Your task to perform on an android device: turn on improve location accuracy Image 0: 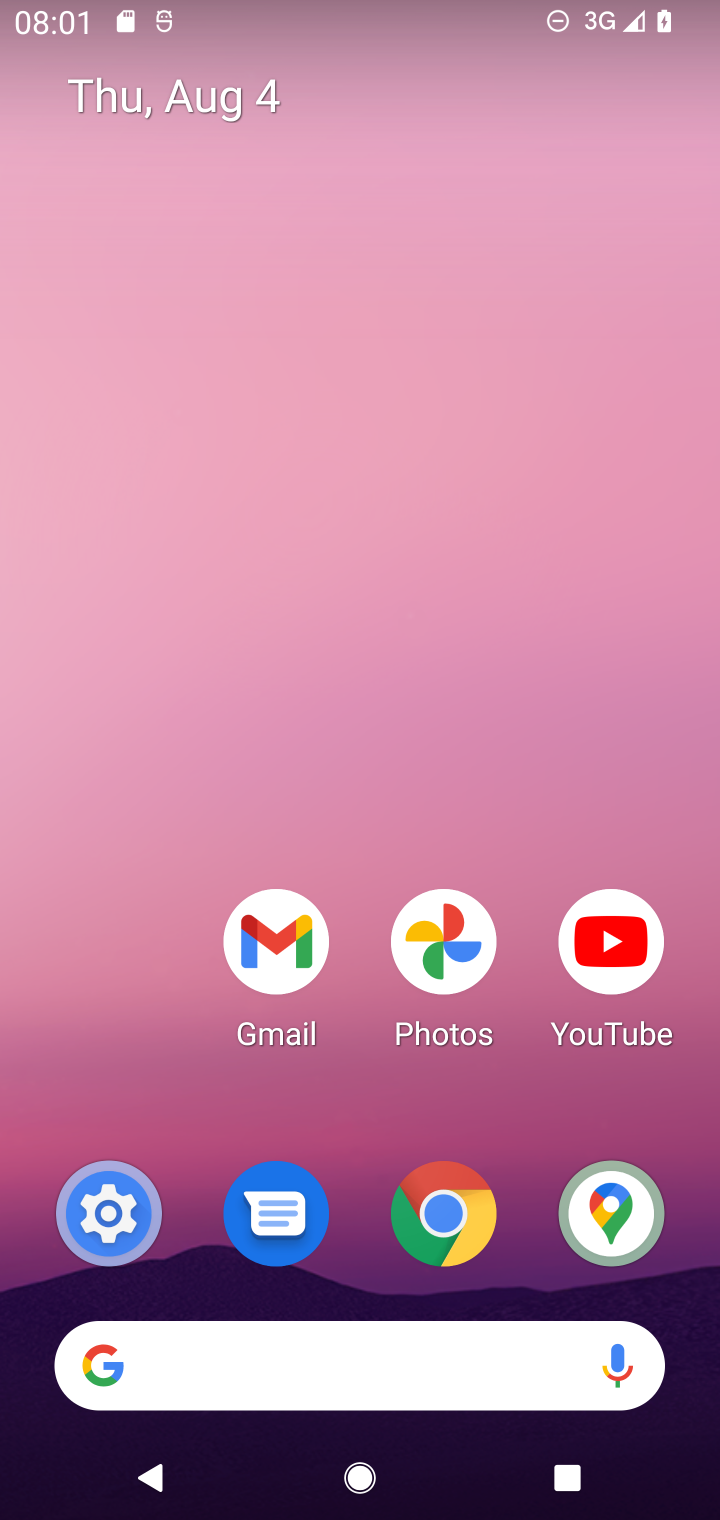
Step 0: drag from (175, 1126) to (201, 382)
Your task to perform on an android device: turn on improve location accuracy Image 1: 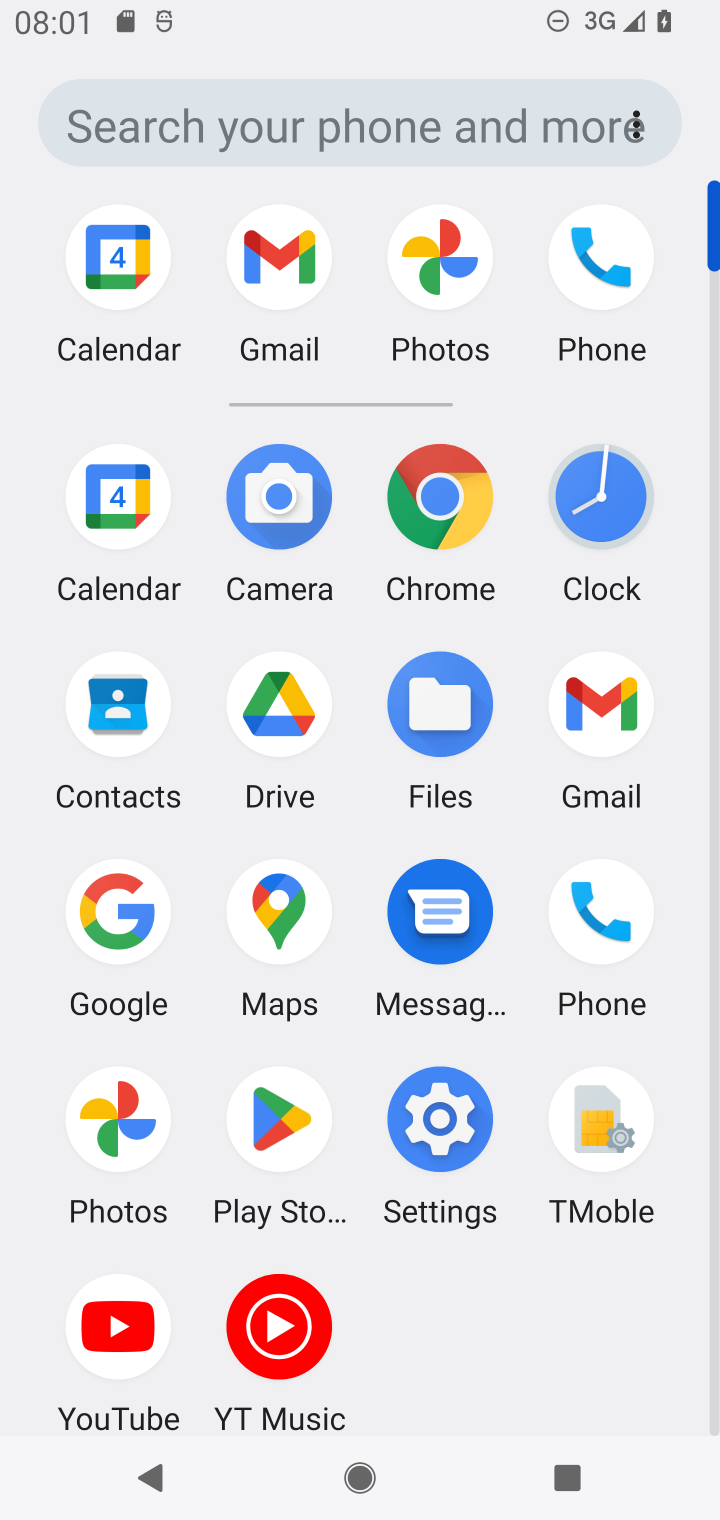
Step 1: click (443, 1130)
Your task to perform on an android device: turn on improve location accuracy Image 2: 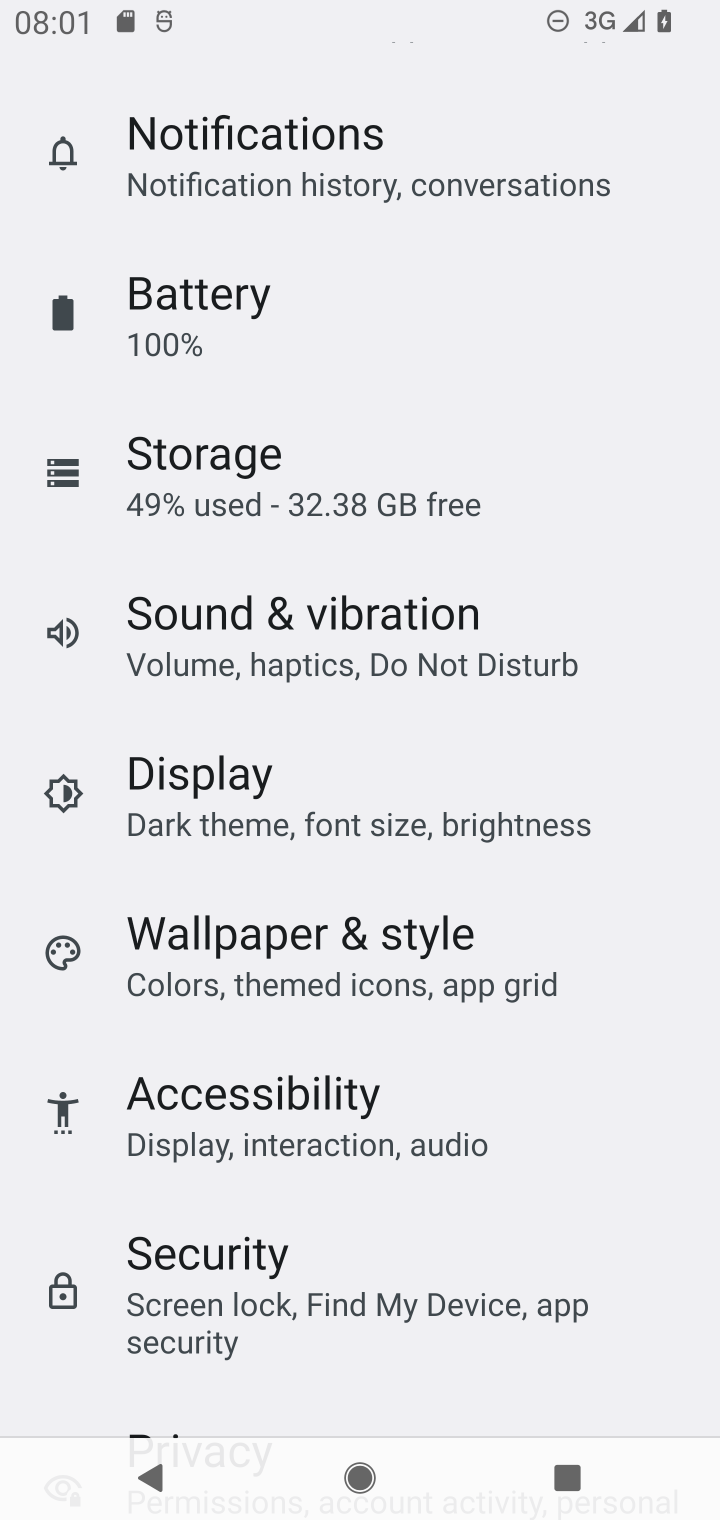
Step 2: drag from (620, 680) to (654, 845)
Your task to perform on an android device: turn on improve location accuracy Image 3: 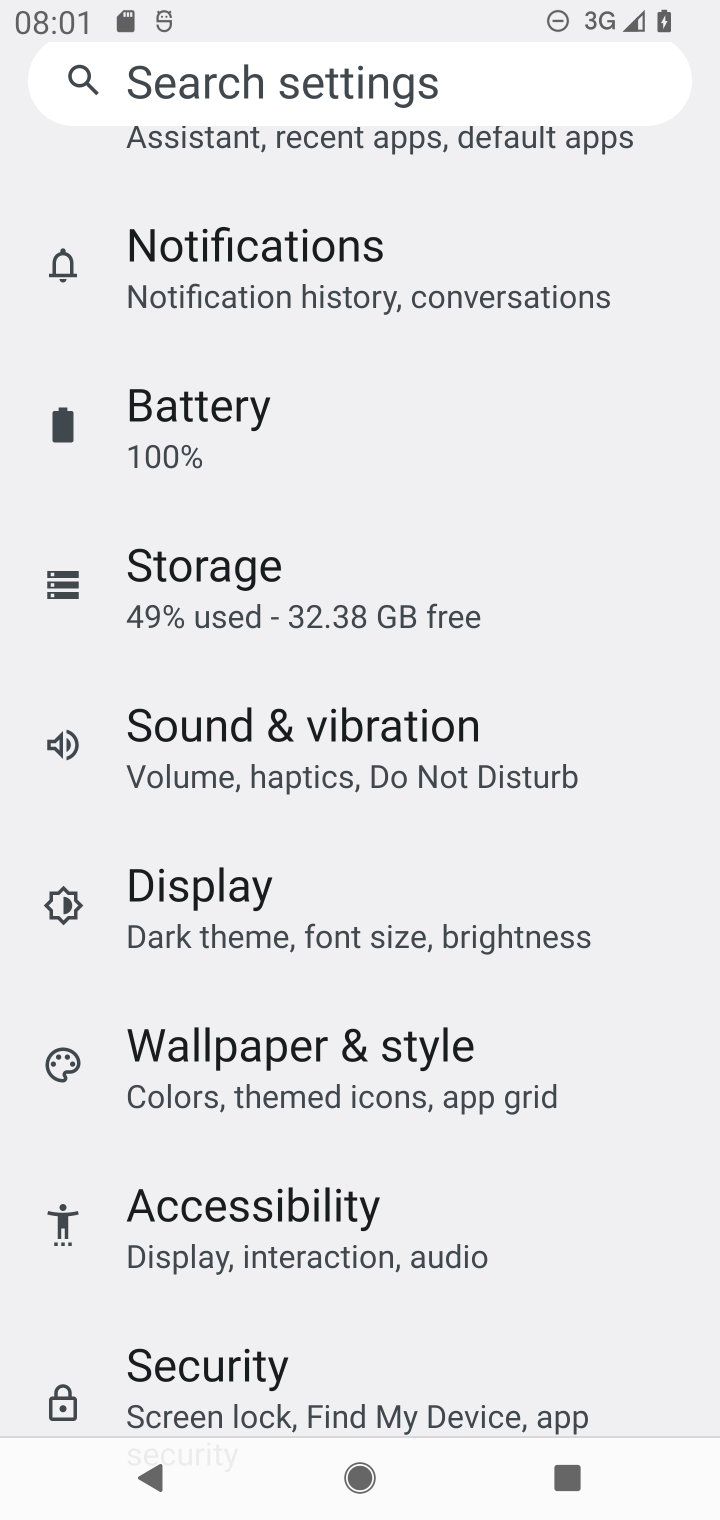
Step 3: drag from (624, 502) to (624, 826)
Your task to perform on an android device: turn on improve location accuracy Image 4: 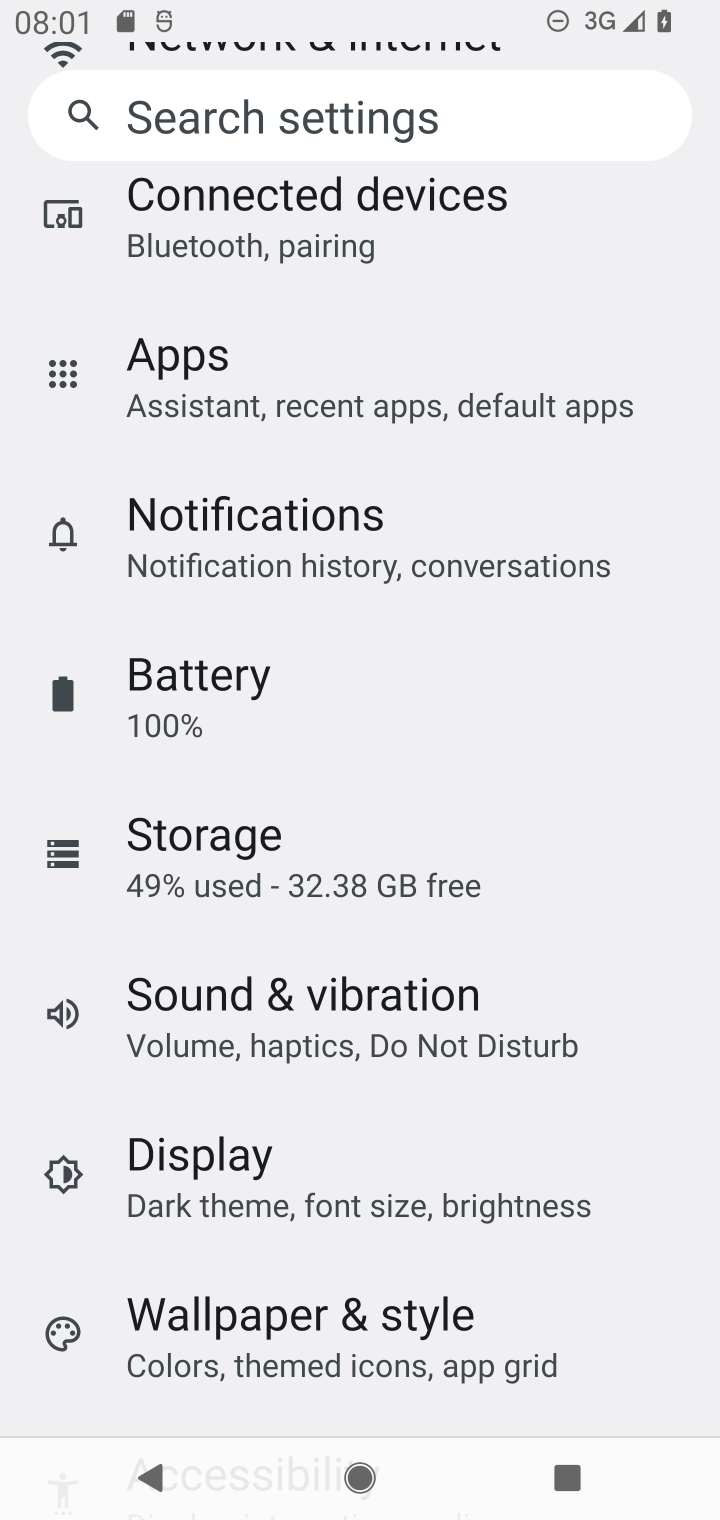
Step 4: drag from (636, 454) to (641, 751)
Your task to perform on an android device: turn on improve location accuracy Image 5: 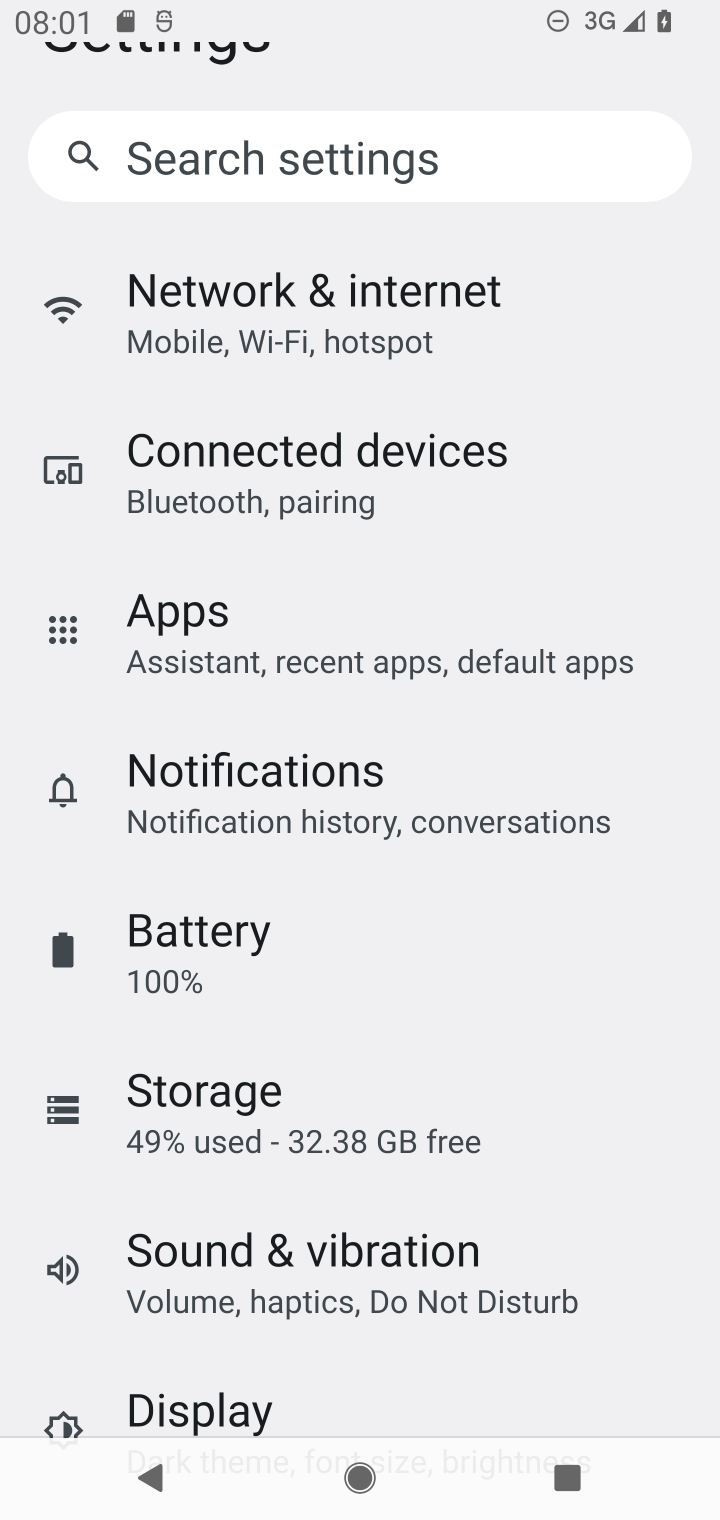
Step 5: drag from (619, 357) to (616, 828)
Your task to perform on an android device: turn on improve location accuracy Image 6: 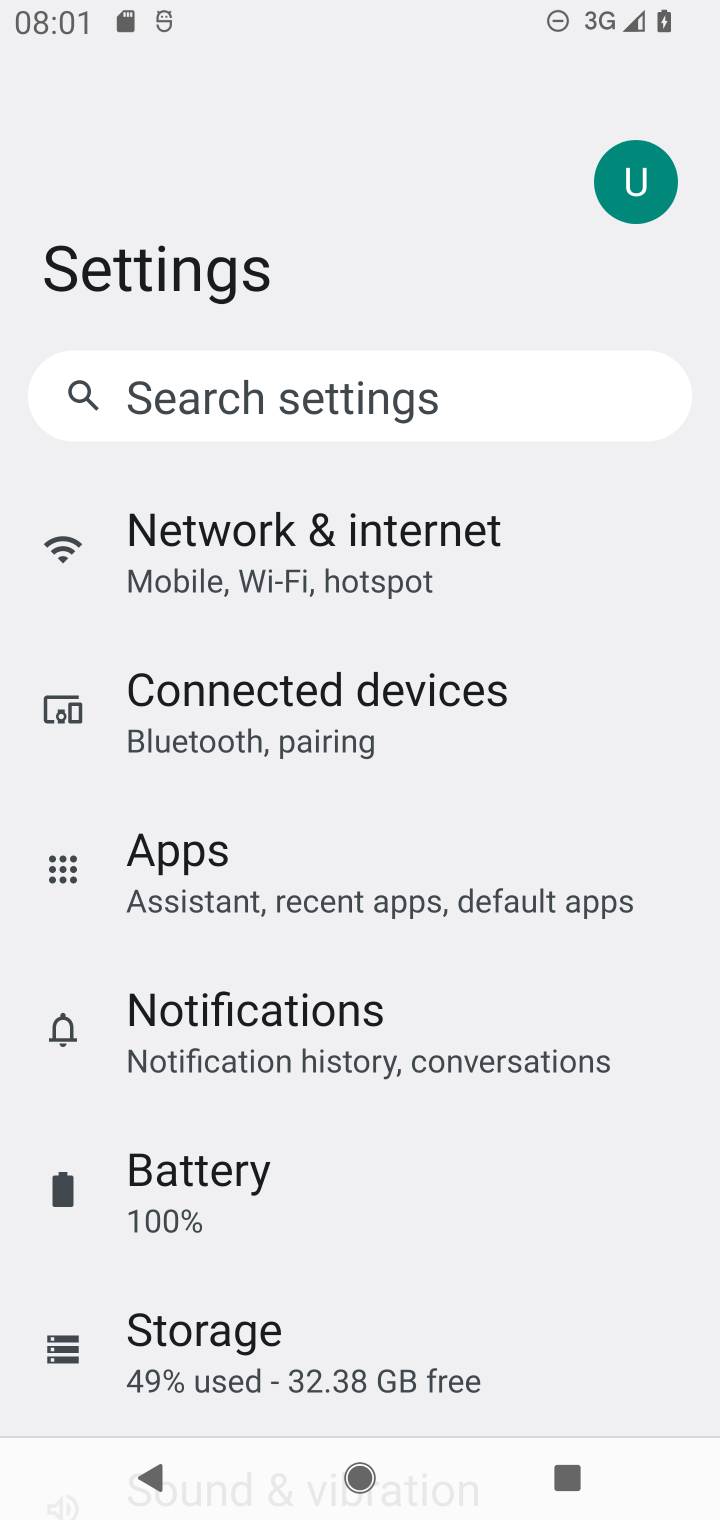
Step 6: drag from (561, 1239) to (566, 1031)
Your task to perform on an android device: turn on improve location accuracy Image 7: 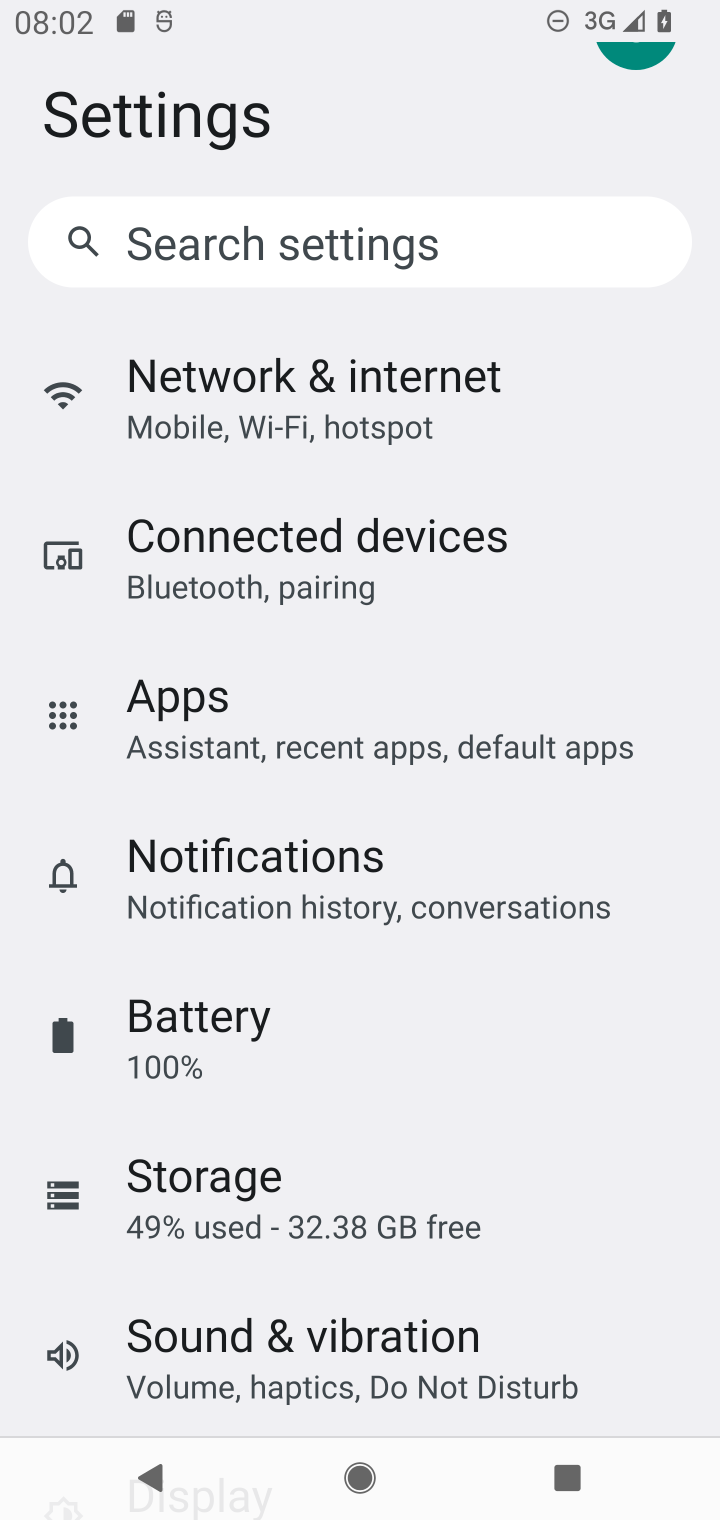
Step 7: drag from (544, 1261) to (573, 1014)
Your task to perform on an android device: turn on improve location accuracy Image 8: 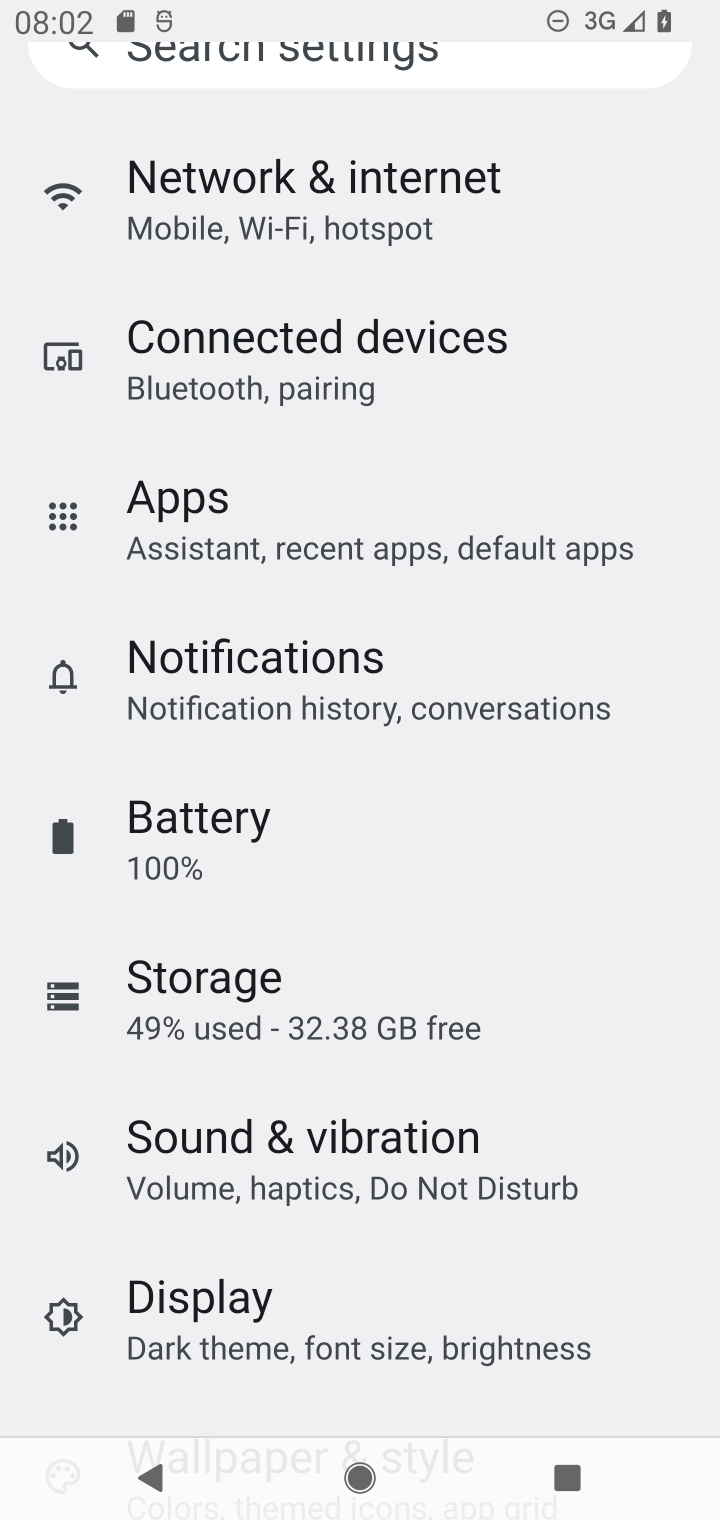
Step 8: drag from (615, 1275) to (608, 1045)
Your task to perform on an android device: turn on improve location accuracy Image 9: 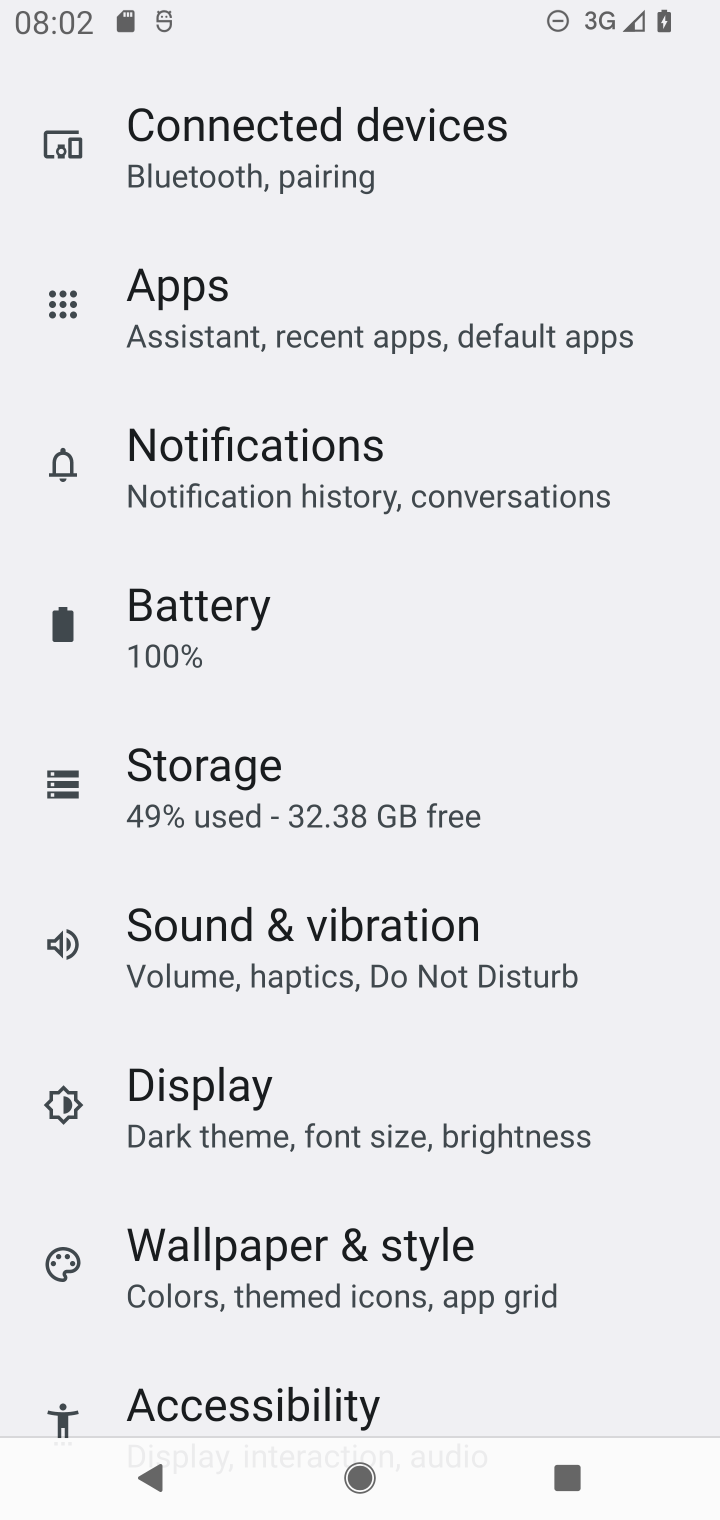
Step 9: drag from (628, 1267) to (611, 988)
Your task to perform on an android device: turn on improve location accuracy Image 10: 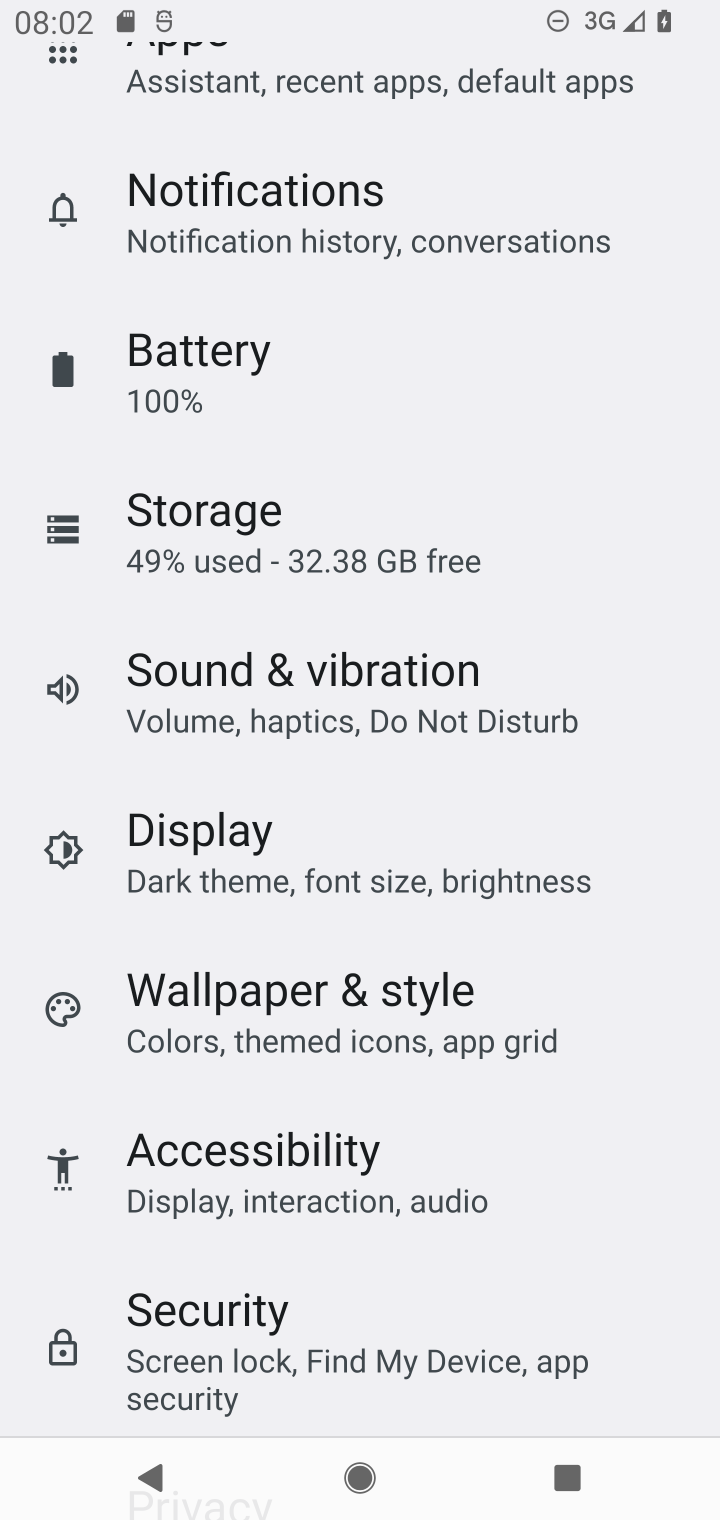
Step 10: drag from (601, 1261) to (597, 989)
Your task to perform on an android device: turn on improve location accuracy Image 11: 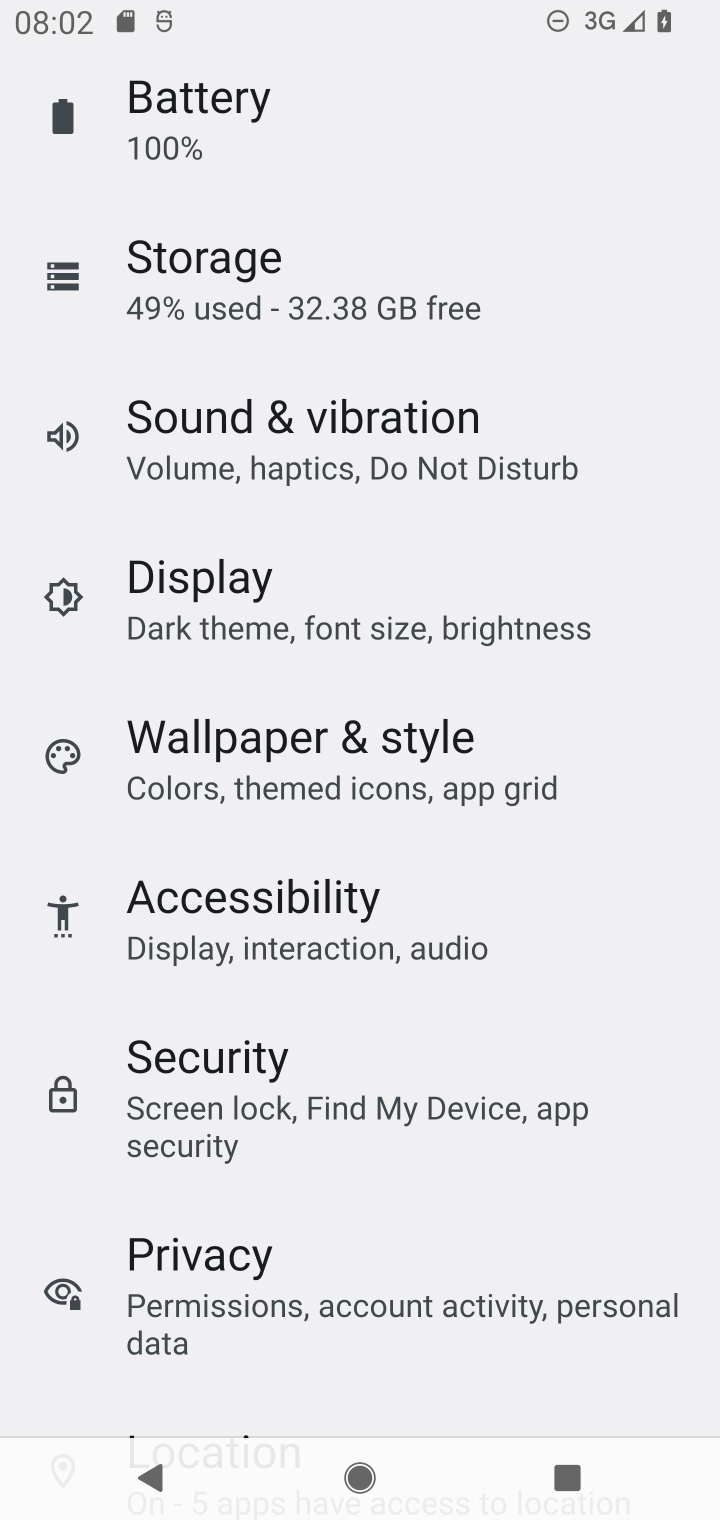
Step 11: drag from (639, 1355) to (601, 911)
Your task to perform on an android device: turn on improve location accuracy Image 12: 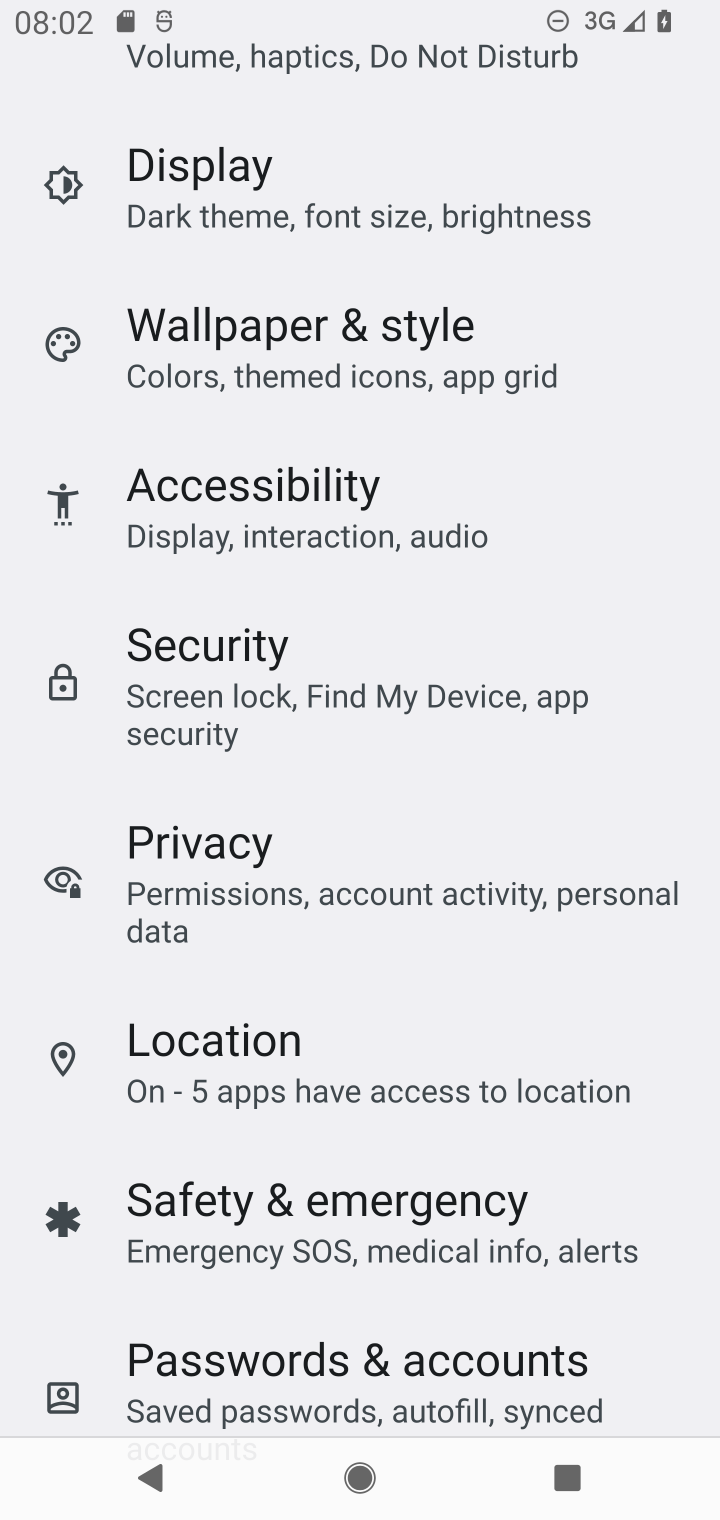
Step 12: click (358, 1049)
Your task to perform on an android device: turn on improve location accuracy Image 13: 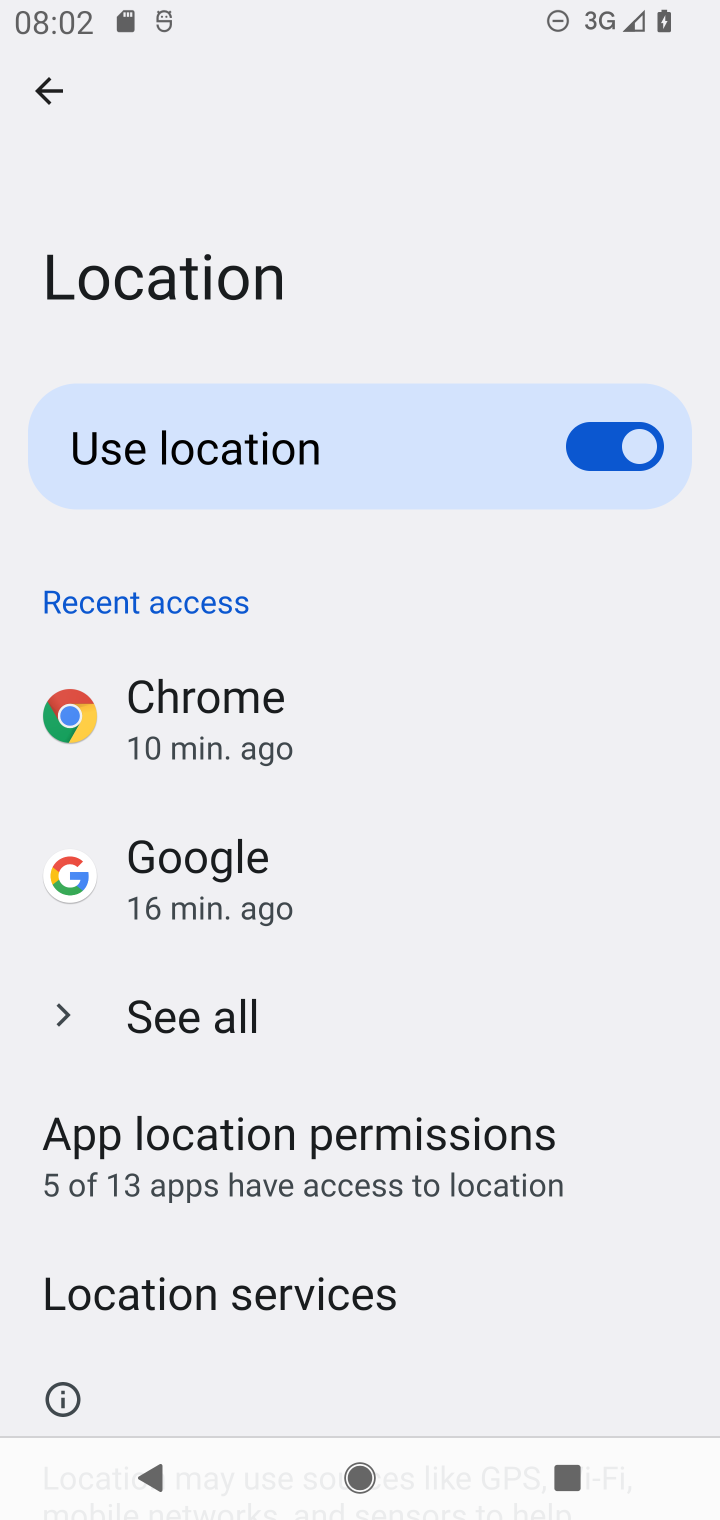
Step 13: drag from (567, 1320) to (606, 1083)
Your task to perform on an android device: turn on improve location accuracy Image 14: 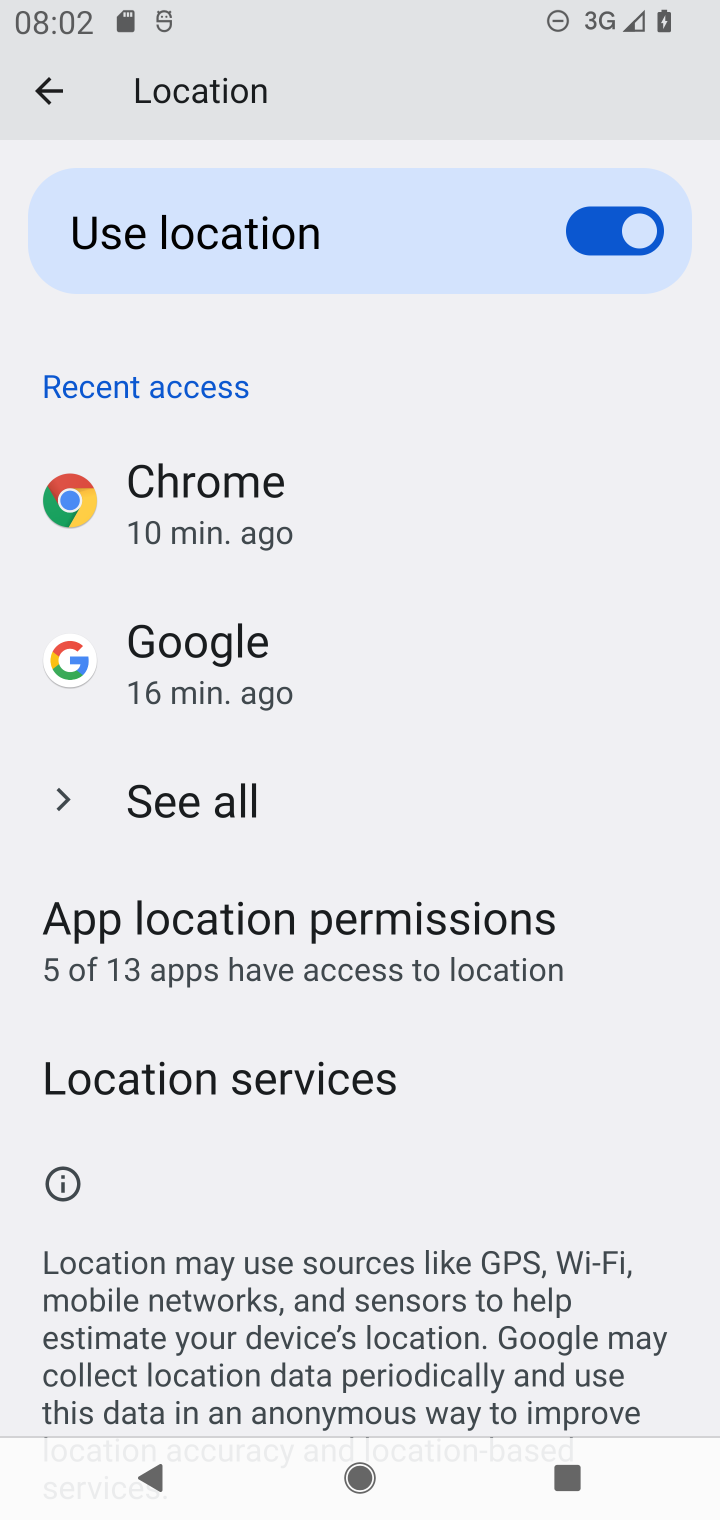
Step 14: click (323, 1077)
Your task to perform on an android device: turn on improve location accuracy Image 15: 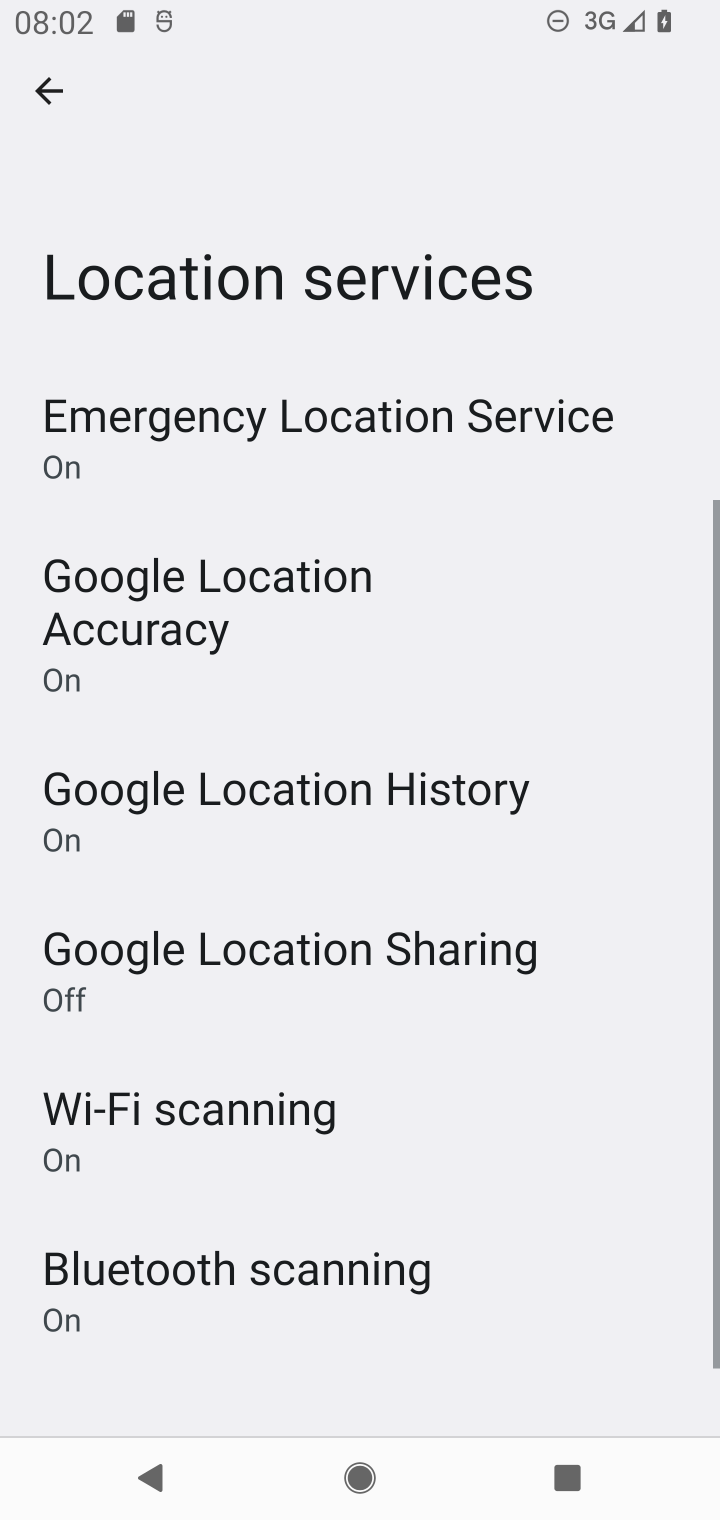
Step 15: task complete